Your task to perform on an android device: toggle wifi Image 0: 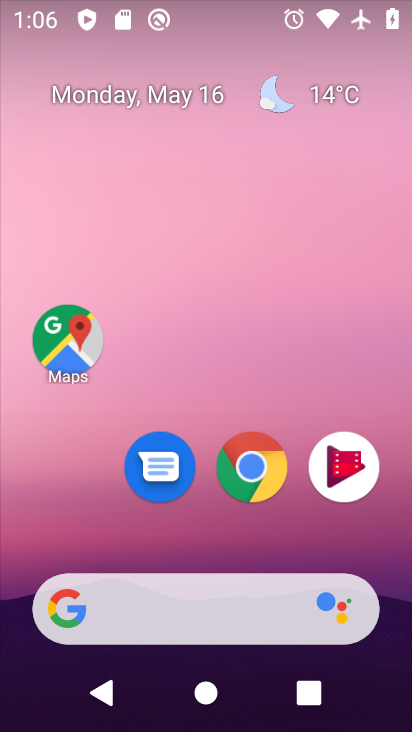
Step 0: drag from (252, 487) to (294, 226)
Your task to perform on an android device: toggle wifi Image 1: 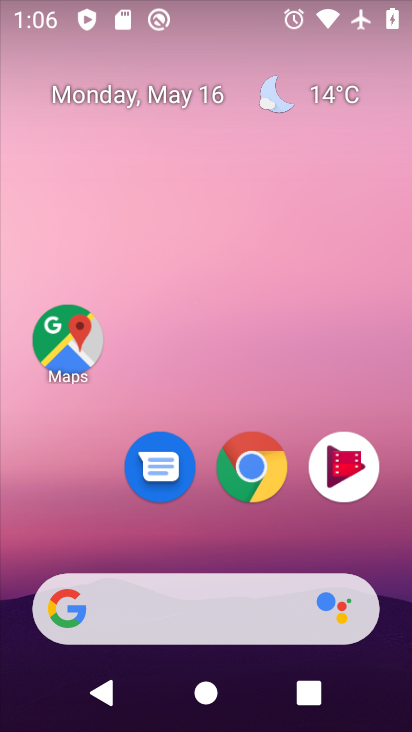
Step 1: drag from (289, 430) to (320, 159)
Your task to perform on an android device: toggle wifi Image 2: 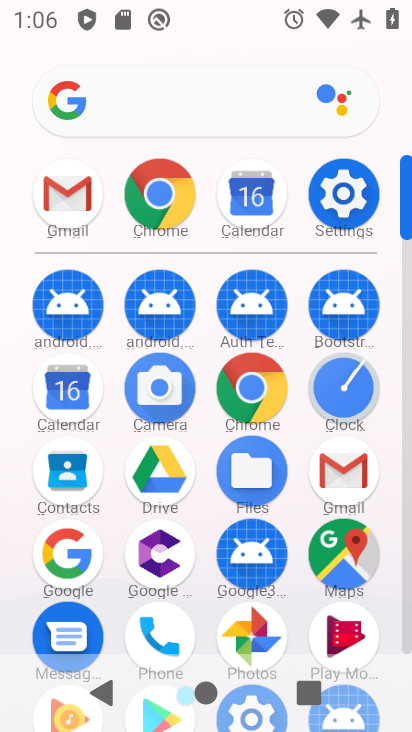
Step 2: click (336, 180)
Your task to perform on an android device: toggle wifi Image 3: 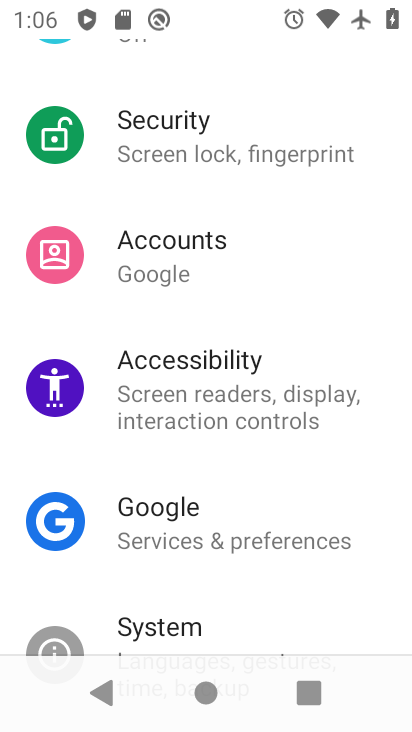
Step 3: drag from (228, 184) to (214, 578)
Your task to perform on an android device: toggle wifi Image 4: 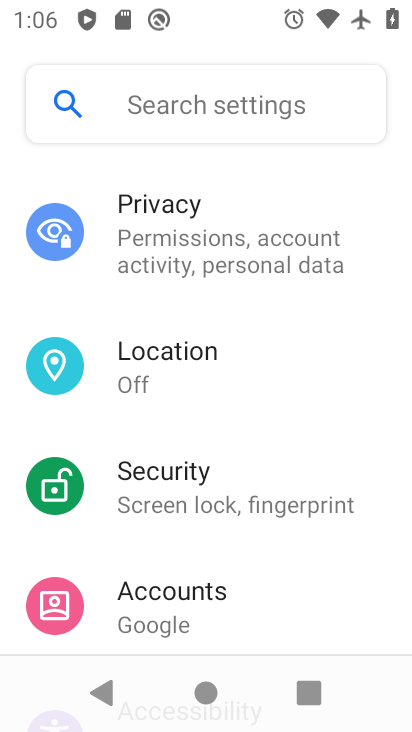
Step 4: drag from (188, 223) to (194, 599)
Your task to perform on an android device: toggle wifi Image 5: 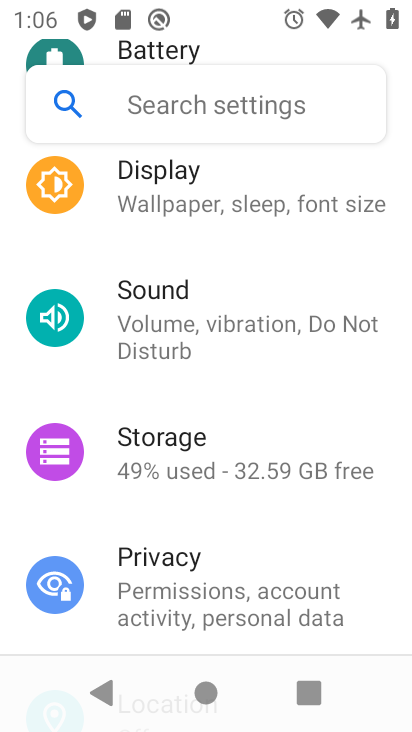
Step 5: drag from (222, 219) to (222, 624)
Your task to perform on an android device: toggle wifi Image 6: 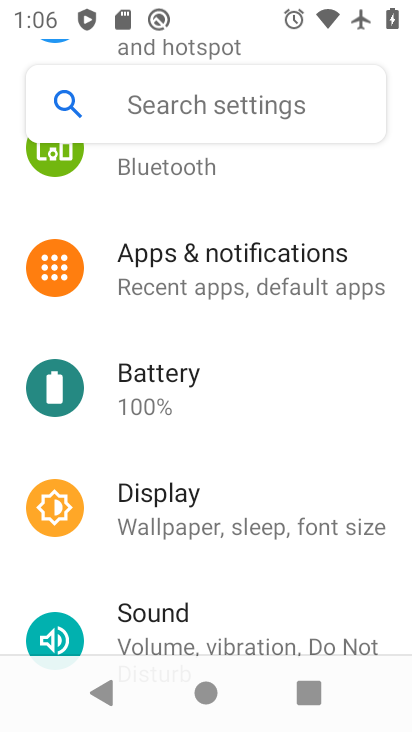
Step 6: drag from (201, 229) to (211, 632)
Your task to perform on an android device: toggle wifi Image 7: 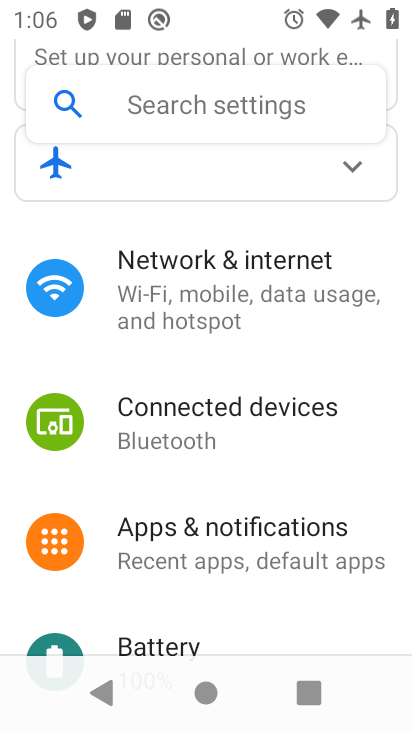
Step 7: click (211, 262)
Your task to perform on an android device: toggle wifi Image 8: 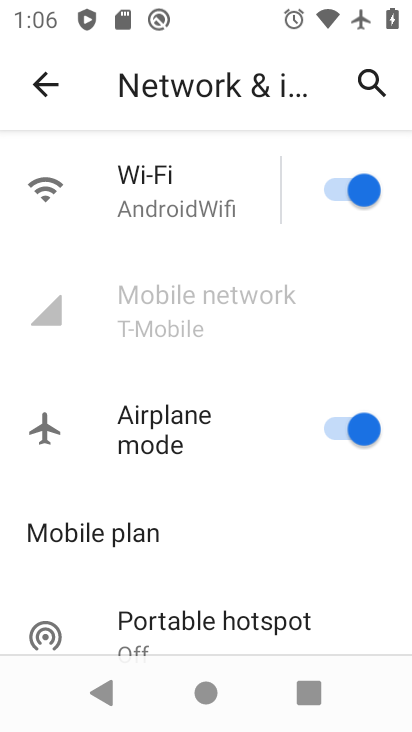
Step 8: click (324, 184)
Your task to perform on an android device: toggle wifi Image 9: 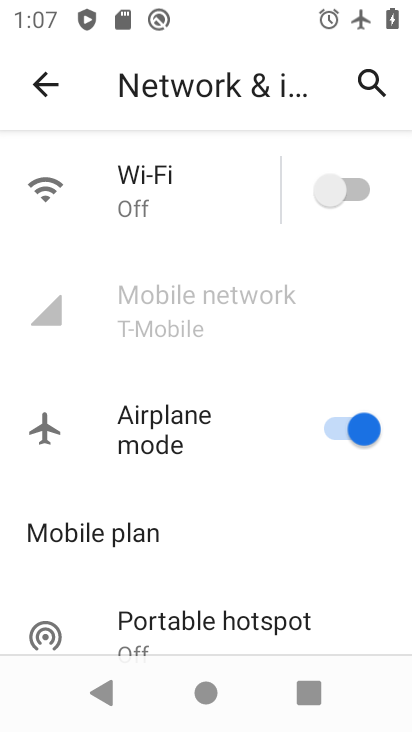
Step 9: task complete